Your task to perform on an android device: turn off improve location accuracy Image 0: 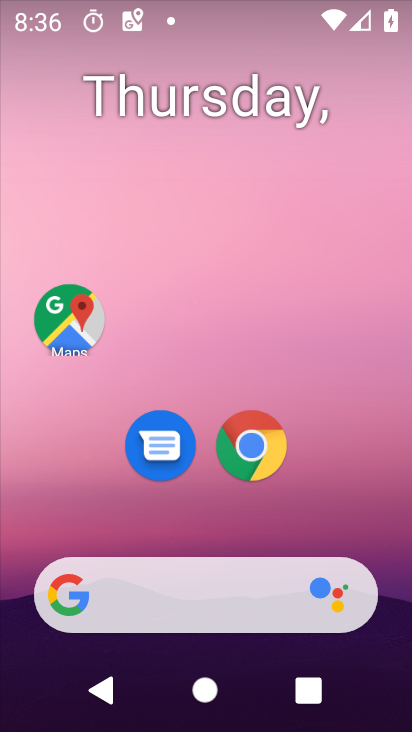
Step 0: drag from (88, 533) to (193, 258)
Your task to perform on an android device: turn off improve location accuracy Image 1: 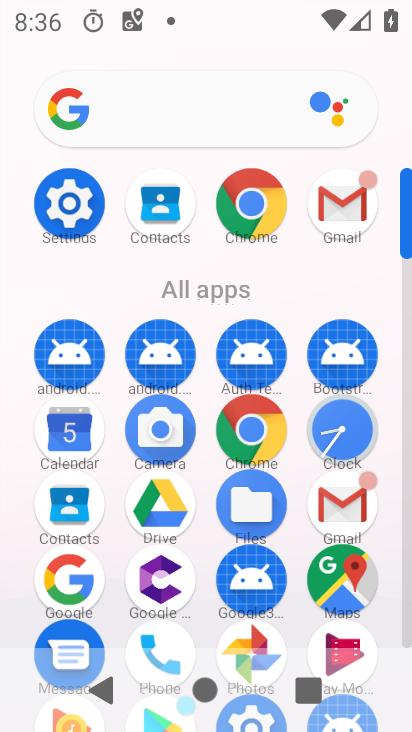
Step 1: click (75, 188)
Your task to perform on an android device: turn off improve location accuracy Image 2: 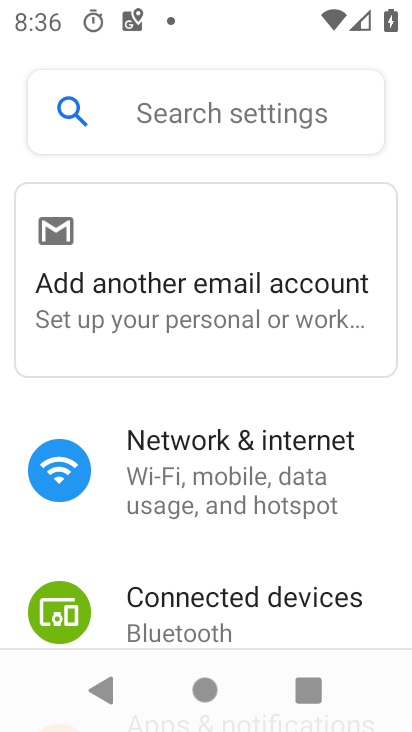
Step 2: drag from (87, 506) to (175, 221)
Your task to perform on an android device: turn off improve location accuracy Image 3: 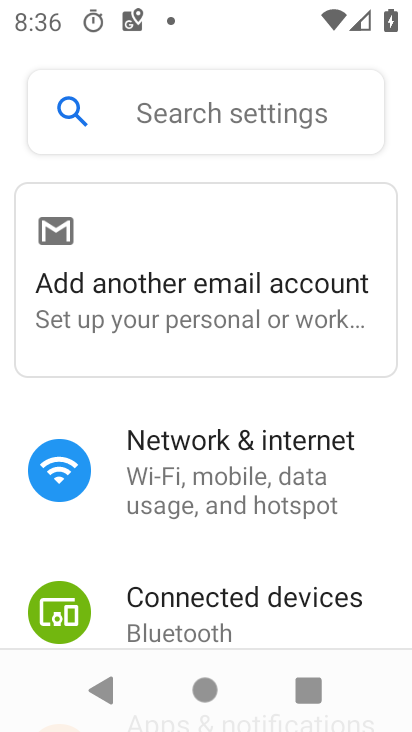
Step 3: drag from (124, 584) to (220, 246)
Your task to perform on an android device: turn off improve location accuracy Image 4: 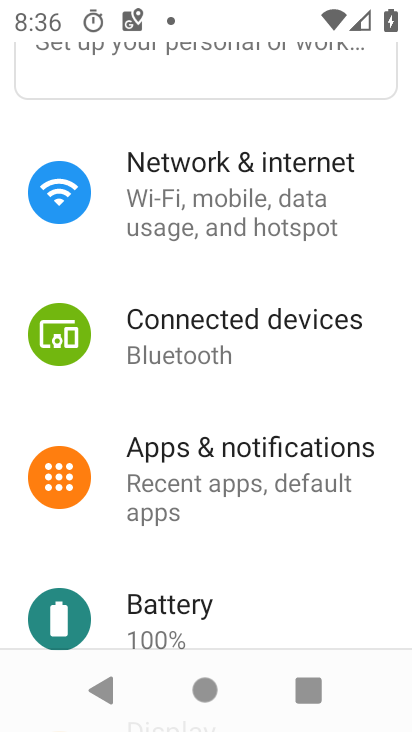
Step 4: drag from (111, 600) to (334, 195)
Your task to perform on an android device: turn off improve location accuracy Image 5: 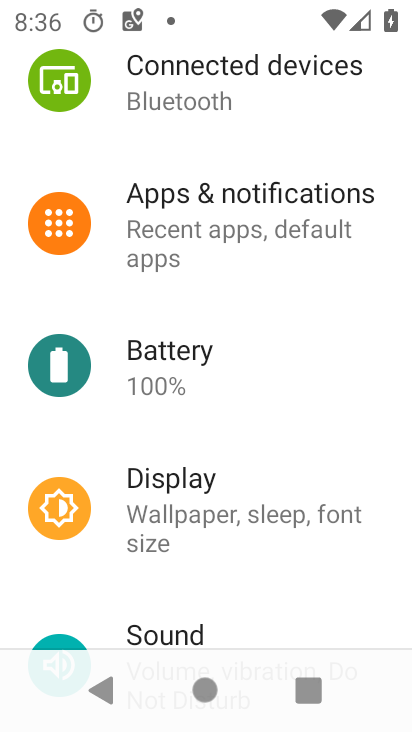
Step 5: drag from (163, 591) to (275, 238)
Your task to perform on an android device: turn off improve location accuracy Image 6: 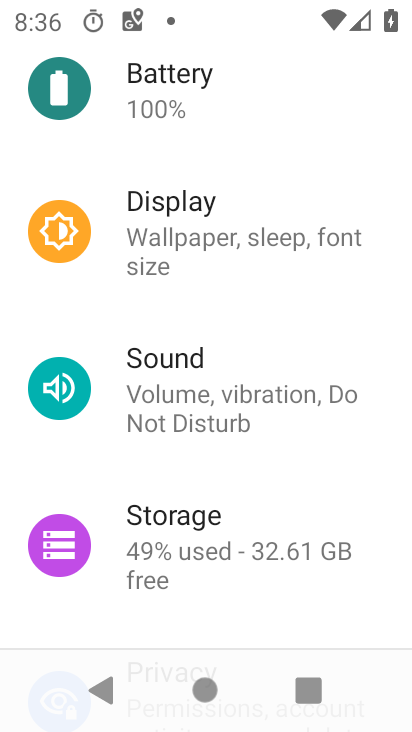
Step 6: drag from (111, 493) to (259, 223)
Your task to perform on an android device: turn off improve location accuracy Image 7: 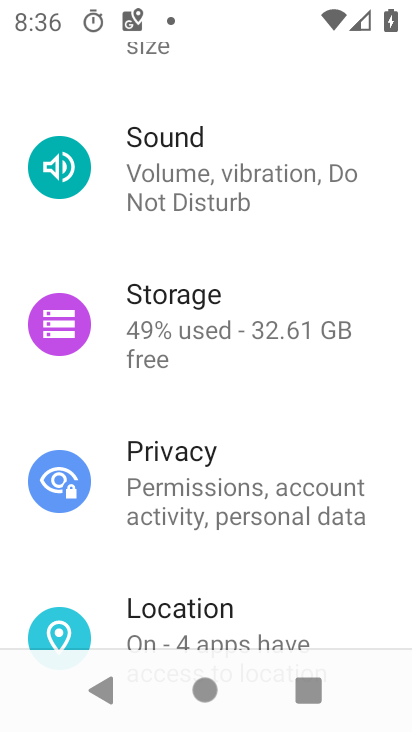
Step 7: click (92, 587)
Your task to perform on an android device: turn off improve location accuracy Image 8: 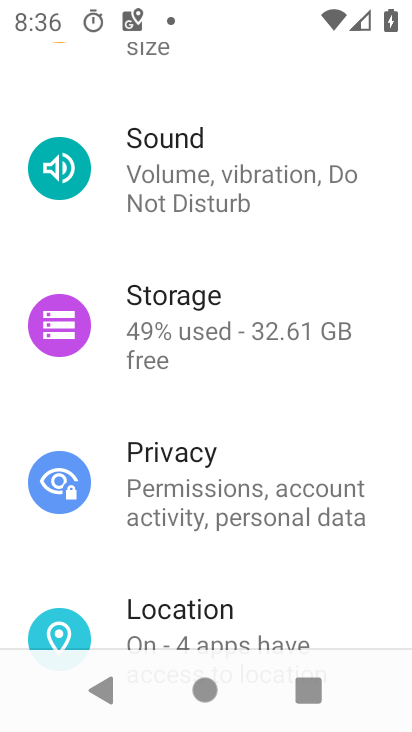
Step 8: click (171, 614)
Your task to perform on an android device: turn off improve location accuracy Image 9: 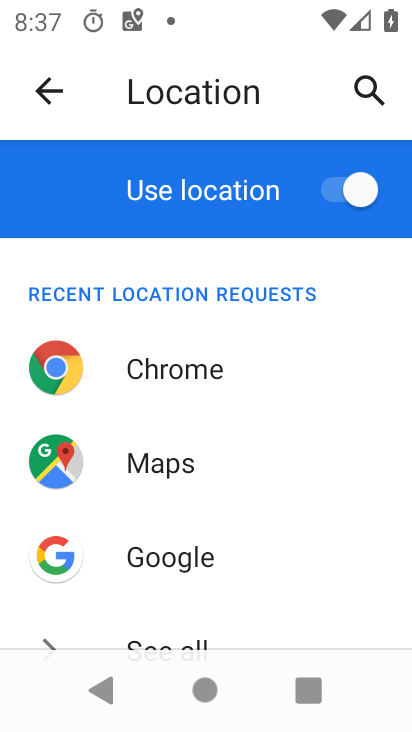
Step 9: drag from (157, 610) to (289, 285)
Your task to perform on an android device: turn off improve location accuracy Image 10: 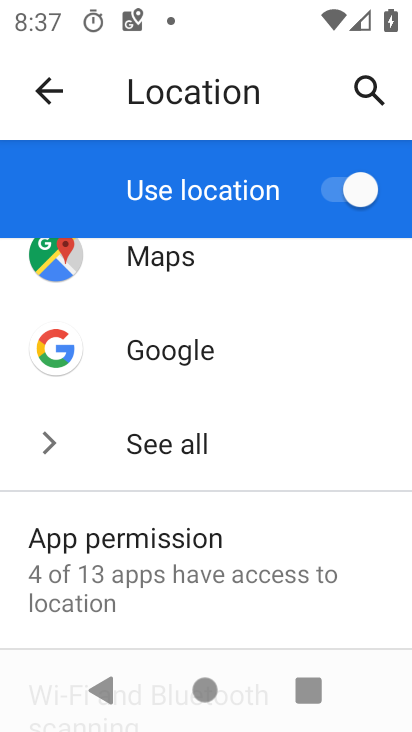
Step 10: drag from (165, 621) to (234, 339)
Your task to perform on an android device: turn off improve location accuracy Image 11: 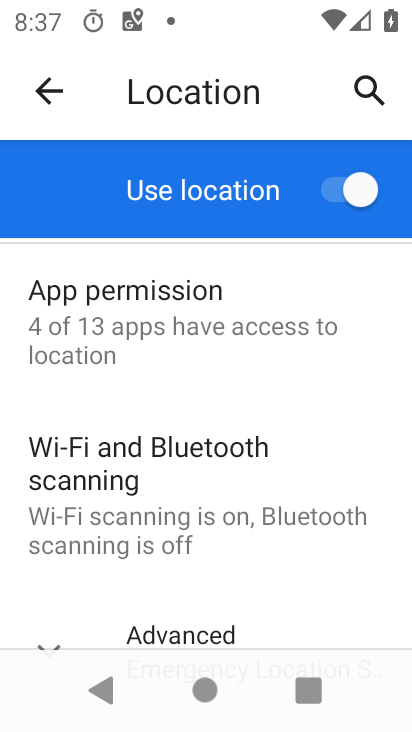
Step 11: drag from (221, 636) to (326, 355)
Your task to perform on an android device: turn off improve location accuracy Image 12: 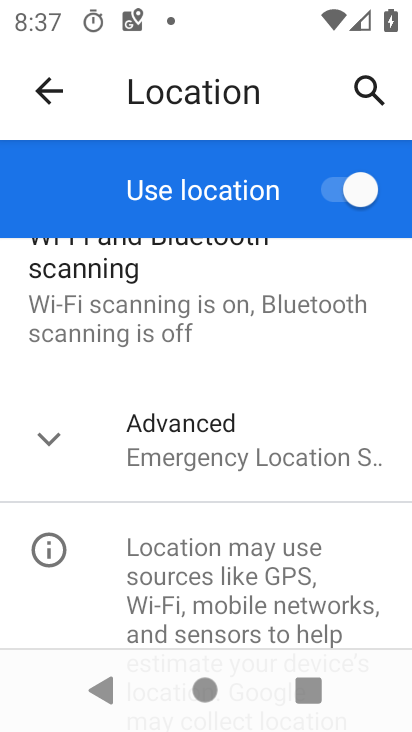
Step 12: click (248, 440)
Your task to perform on an android device: turn off improve location accuracy Image 13: 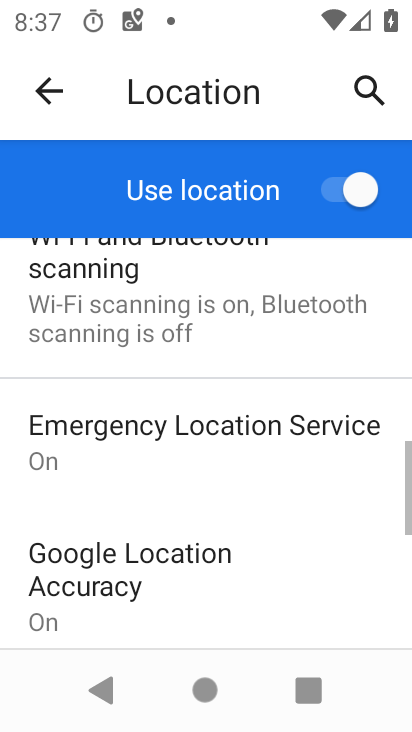
Step 13: drag from (223, 584) to (317, 315)
Your task to perform on an android device: turn off improve location accuracy Image 14: 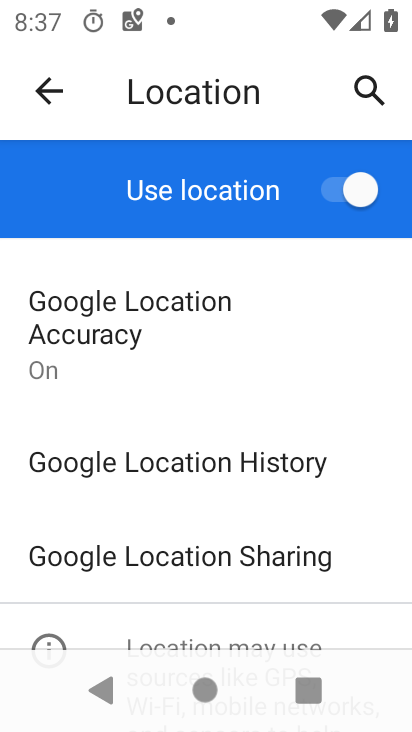
Step 14: click (209, 304)
Your task to perform on an android device: turn off improve location accuracy Image 15: 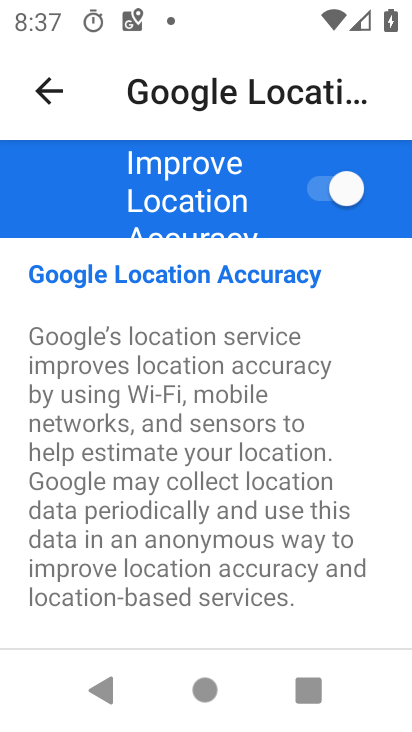
Step 15: click (348, 195)
Your task to perform on an android device: turn off improve location accuracy Image 16: 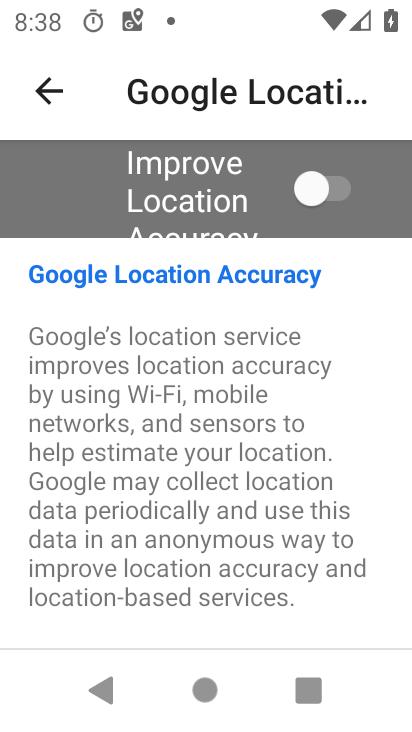
Step 16: task complete